Your task to perform on an android device: toggle priority inbox in the gmail app Image 0: 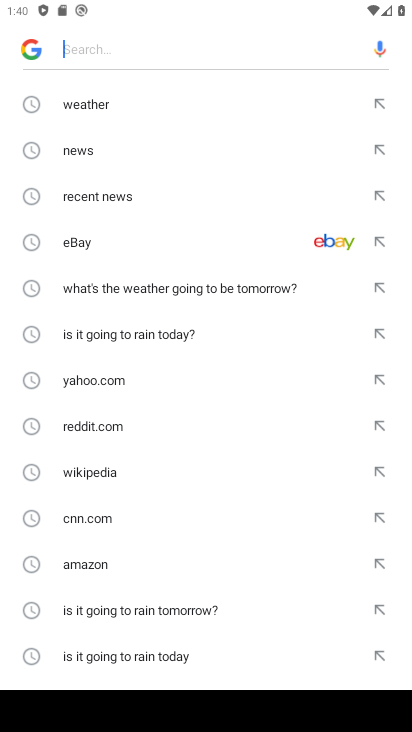
Step 0: press home button
Your task to perform on an android device: toggle priority inbox in the gmail app Image 1: 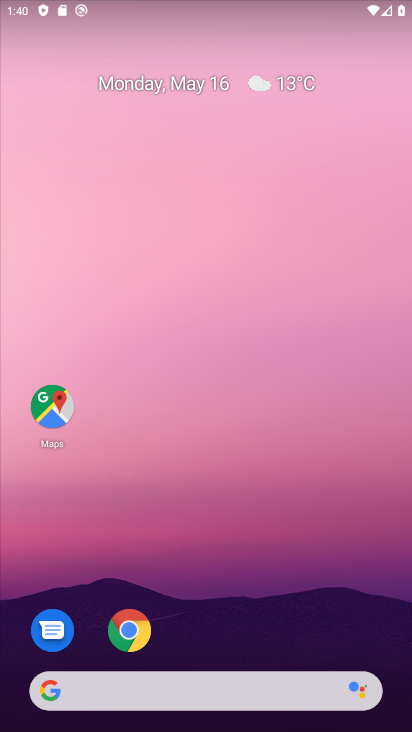
Step 1: drag from (289, 618) to (268, 243)
Your task to perform on an android device: toggle priority inbox in the gmail app Image 2: 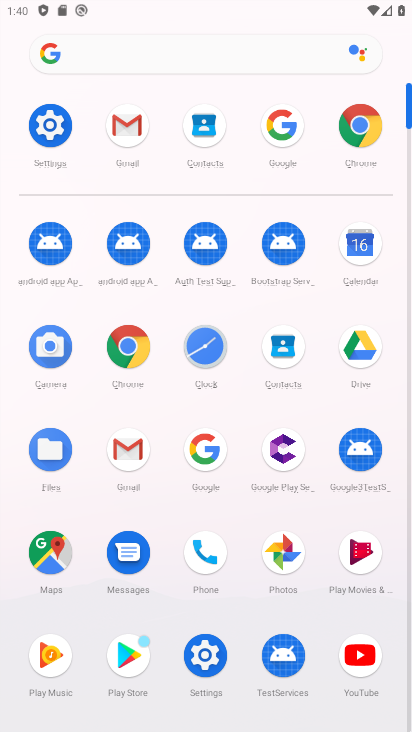
Step 2: click (137, 132)
Your task to perform on an android device: toggle priority inbox in the gmail app Image 3: 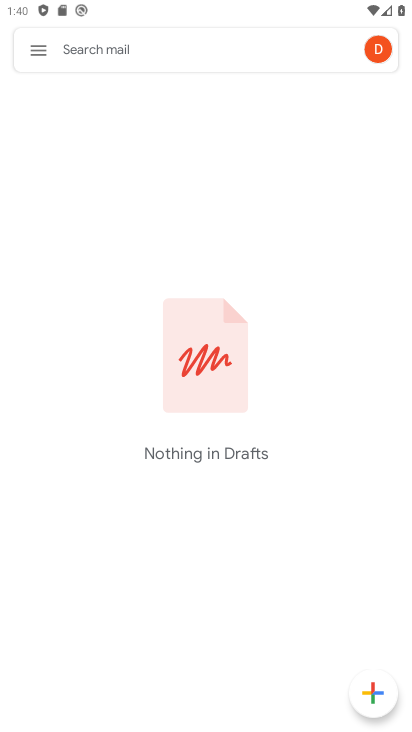
Step 3: click (32, 42)
Your task to perform on an android device: toggle priority inbox in the gmail app Image 4: 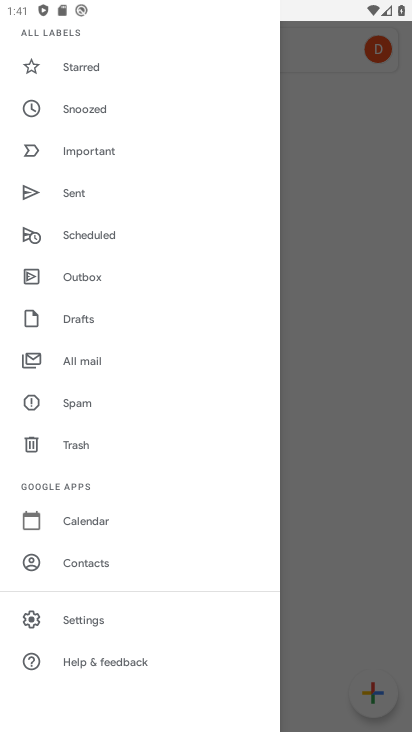
Step 4: click (89, 609)
Your task to perform on an android device: toggle priority inbox in the gmail app Image 5: 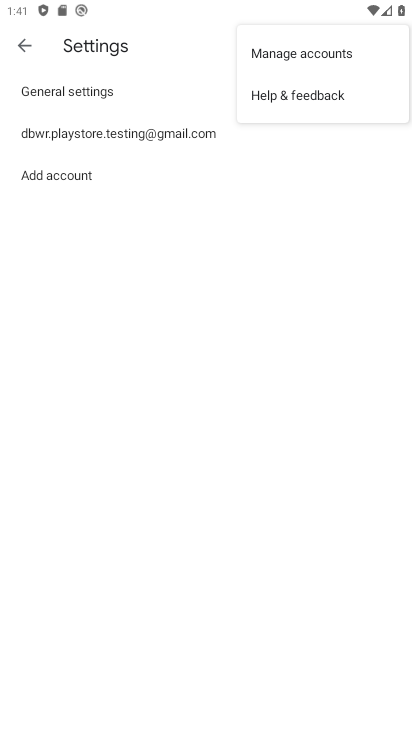
Step 5: task complete